Your task to perform on an android device: show emergency info Image 0: 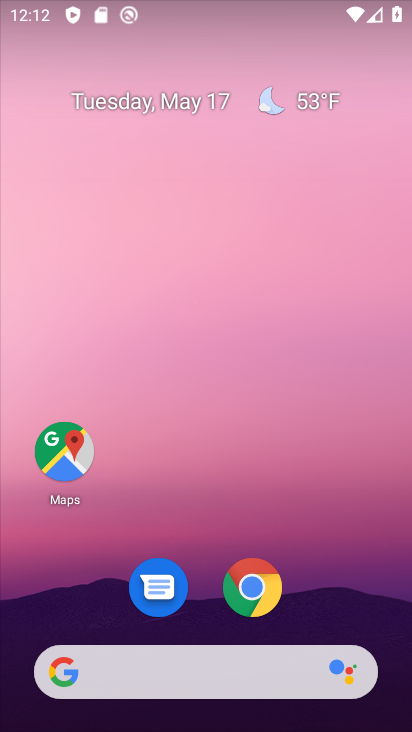
Step 0: drag from (215, 616) to (239, 101)
Your task to perform on an android device: show emergency info Image 1: 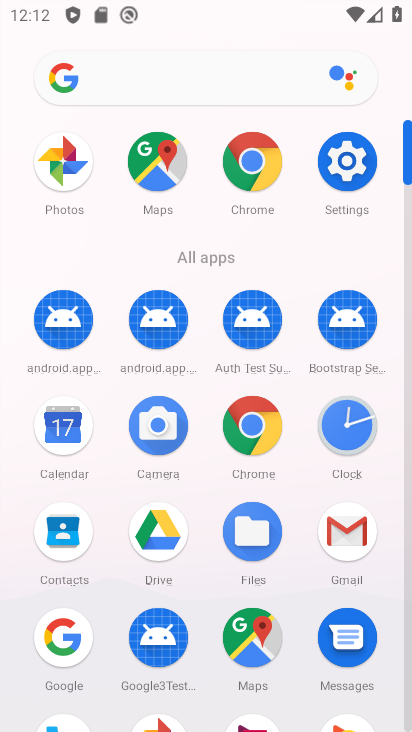
Step 1: click (347, 185)
Your task to perform on an android device: show emergency info Image 2: 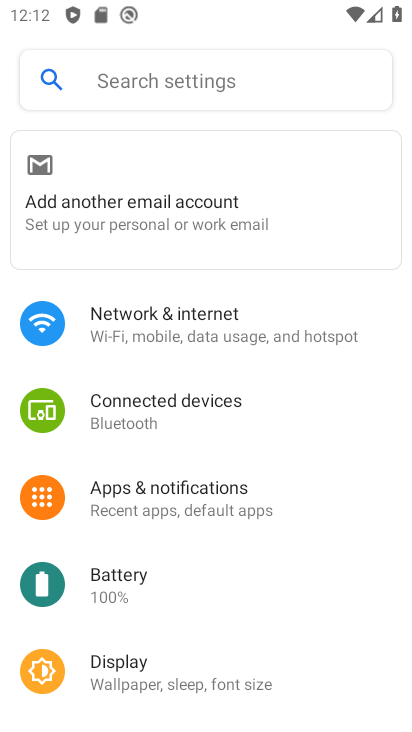
Step 2: drag from (238, 597) to (233, 152)
Your task to perform on an android device: show emergency info Image 3: 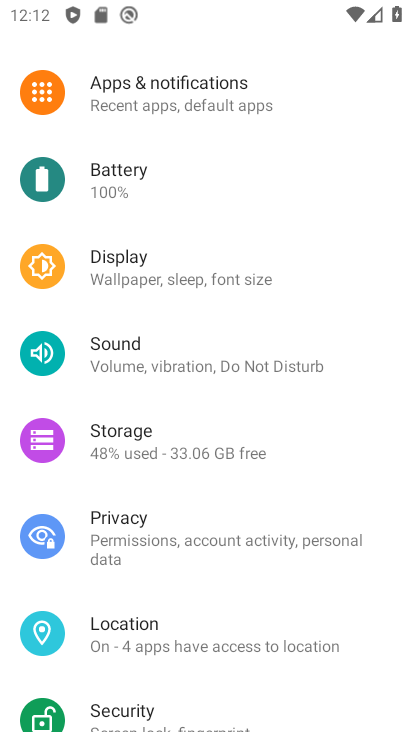
Step 3: drag from (167, 600) to (204, 203)
Your task to perform on an android device: show emergency info Image 4: 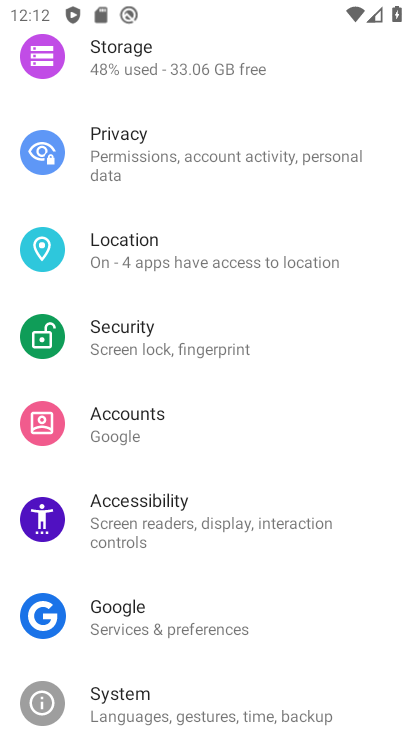
Step 4: drag from (193, 625) to (230, 312)
Your task to perform on an android device: show emergency info Image 5: 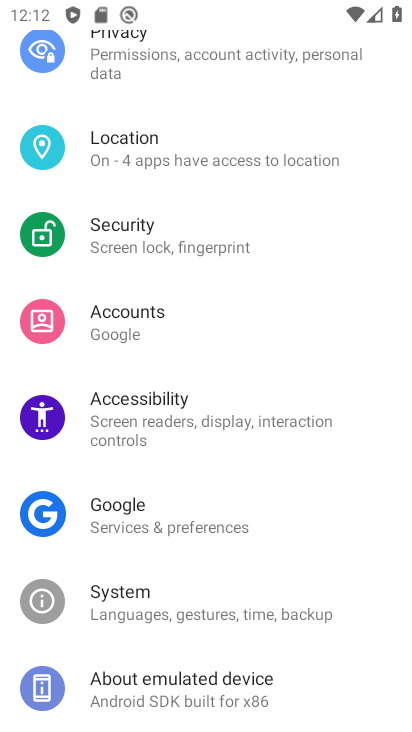
Step 5: click (211, 696)
Your task to perform on an android device: show emergency info Image 6: 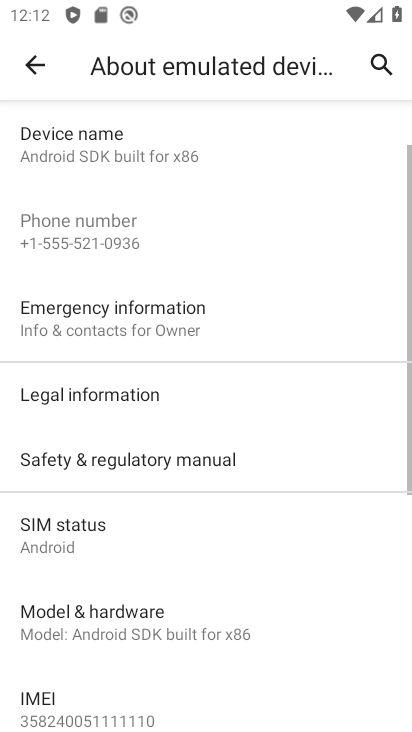
Step 6: click (142, 314)
Your task to perform on an android device: show emergency info Image 7: 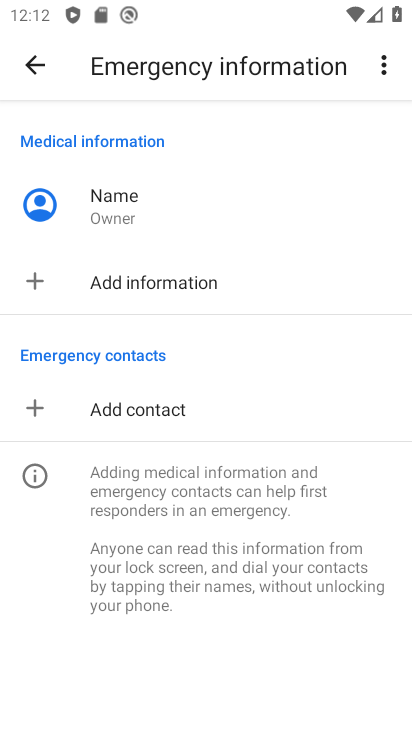
Step 7: task complete